Your task to perform on an android device: turn off data saver in the chrome app Image 0: 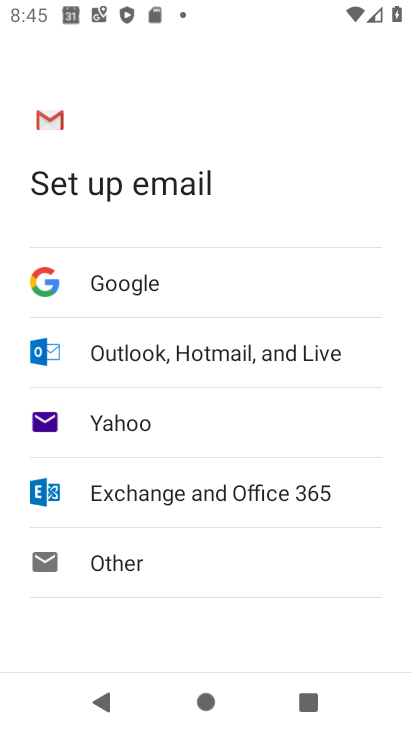
Step 0: press home button
Your task to perform on an android device: turn off data saver in the chrome app Image 1: 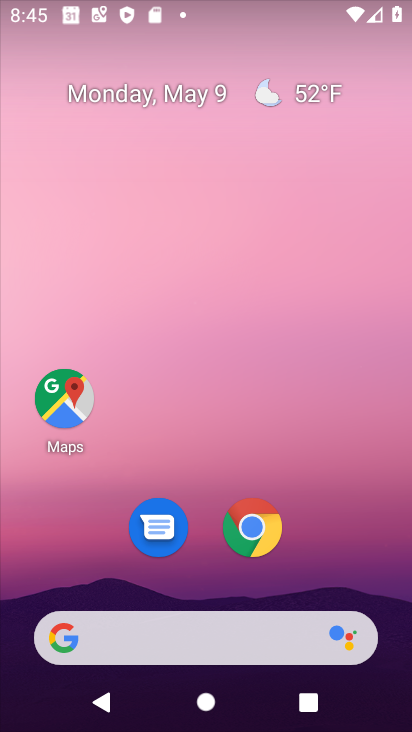
Step 1: click (258, 528)
Your task to perform on an android device: turn off data saver in the chrome app Image 2: 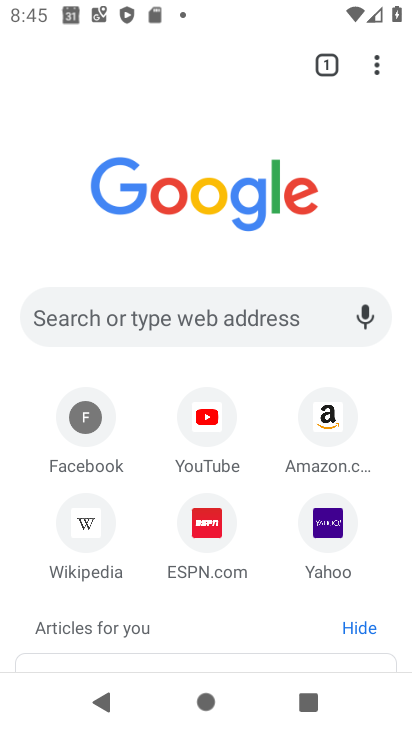
Step 2: click (365, 74)
Your task to perform on an android device: turn off data saver in the chrome app Image 3: 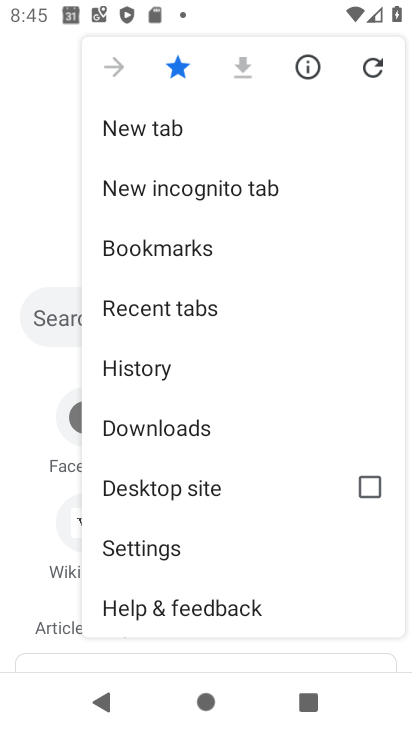
Step 3: click (145, 539)
Your task to perform on an android device: turn off data saver in the chrome app Image 4: 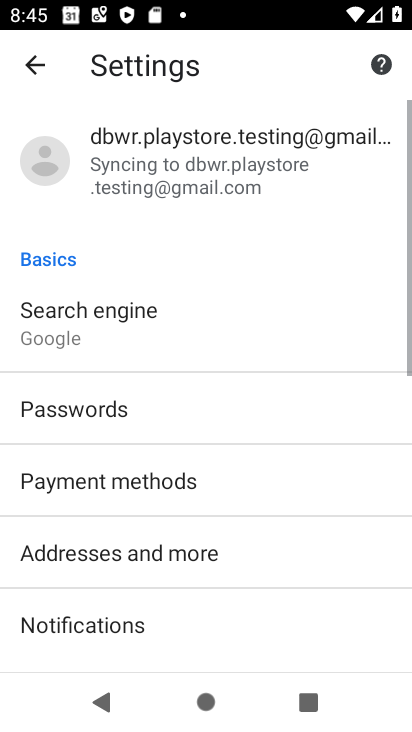
Step 4: drag from (270, 573) to (312, 18)
Your task to perform on an android device: turn off data saver in the chrome app Image 5: 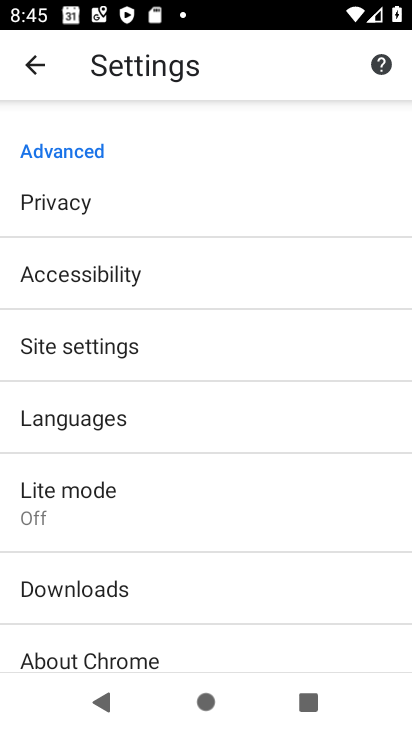
Step 5: click (71, 503)
Your task to perform on an android device: turn off data saver in the chrome app Image 6: 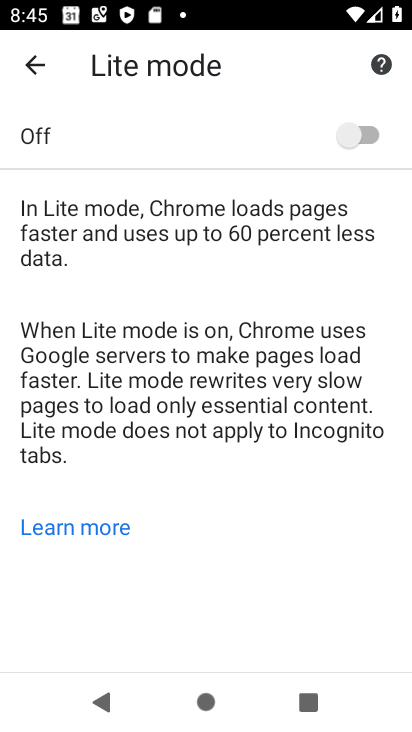
Step 6: task complete